Your task to perform on an android device: Go to calendar. Show me events next week Image 0: 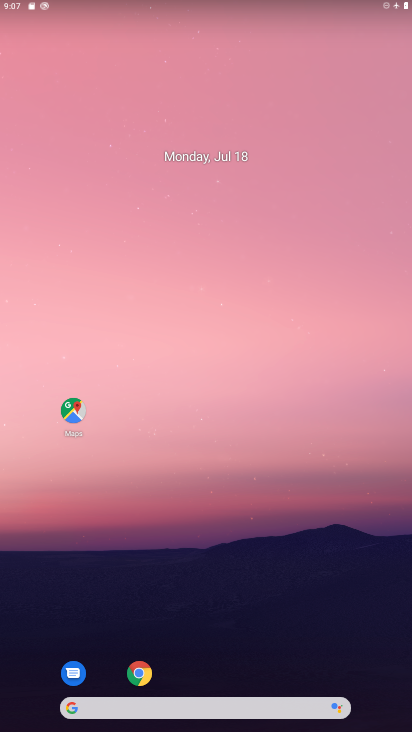
Step 0: press home button
Your task to perform on an android device: Go to calendar. Show me events next week Image 1: 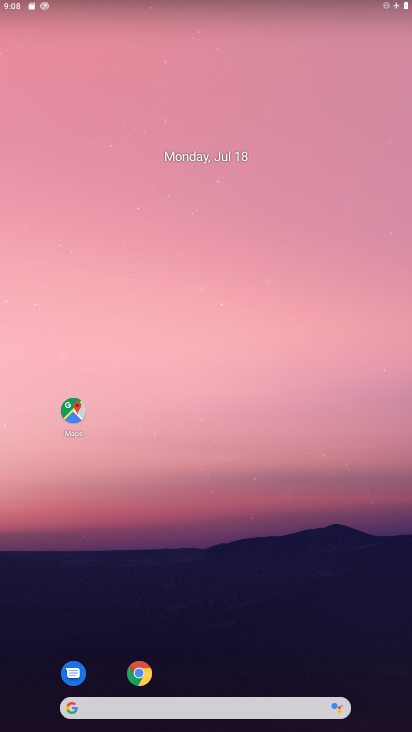
Step 1: drag from (235, 662) to (284, 95)
Your task to perform on an android device: Go to calendar. Show me events next week Image 2: 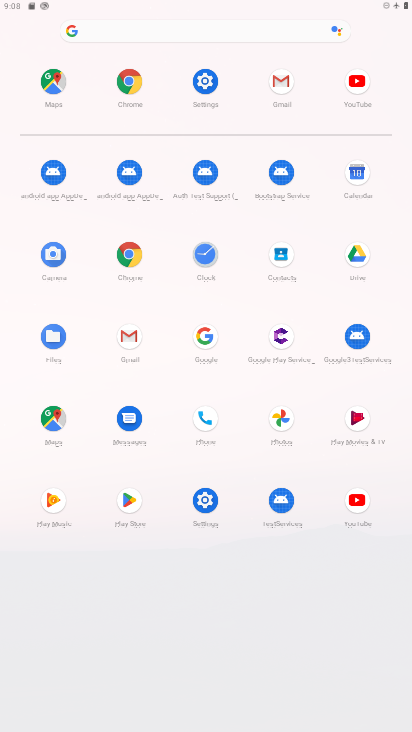
Step 2: click (358, 171)
Your task to perform on an android device: Go to calendar. Show me events next week Image 3: 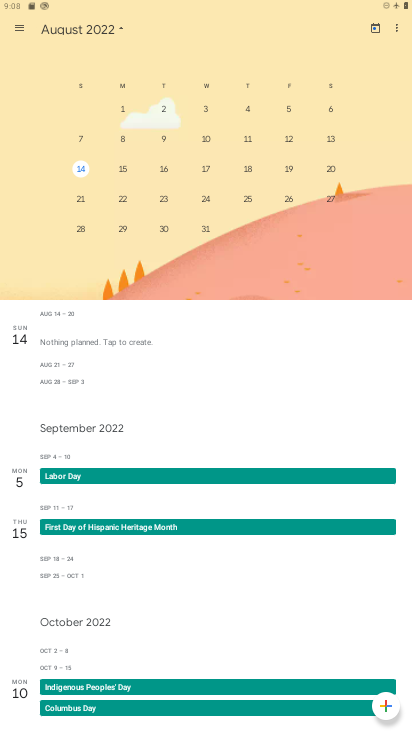
Step 3: click (22, 25)
Your task to perform on an android device: Go to calendar. Show me events next week Image 4: 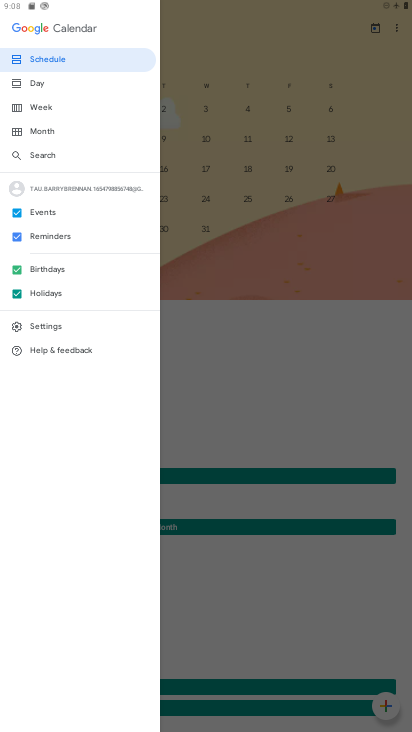
Step 4: click (54, 63)
Your task to perform on an android device: Go to calendar. Show me events next week Image 5: 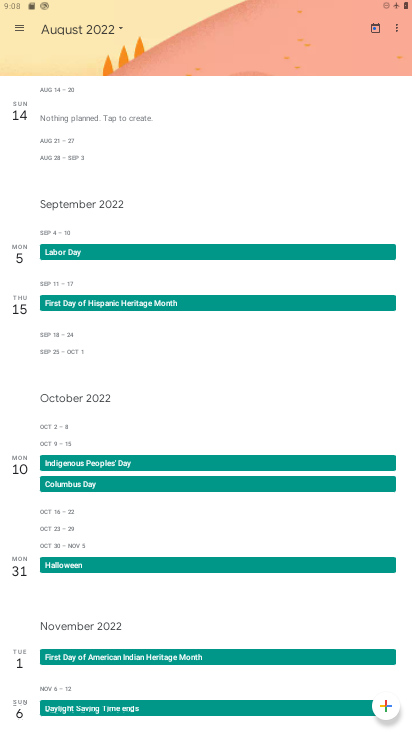
Step 5: task complete